Your task to perform on an android device: What's on my calendar tomorrow? Image 0: 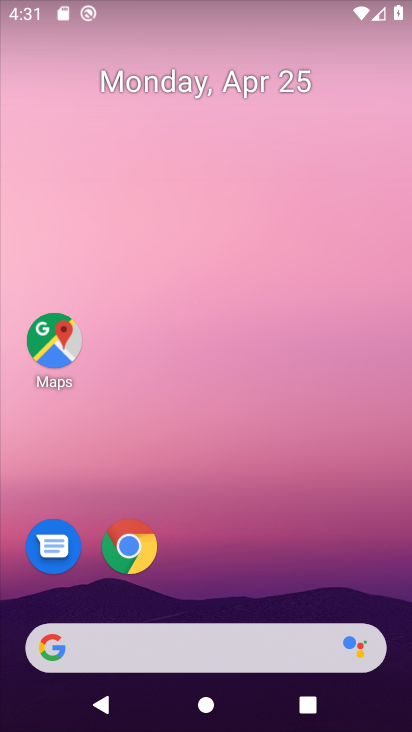
Step 0: drag from (266, 554) to (338, 1)
Your task to perform on an android device: What's on my calendar tomorrow? Image 1: 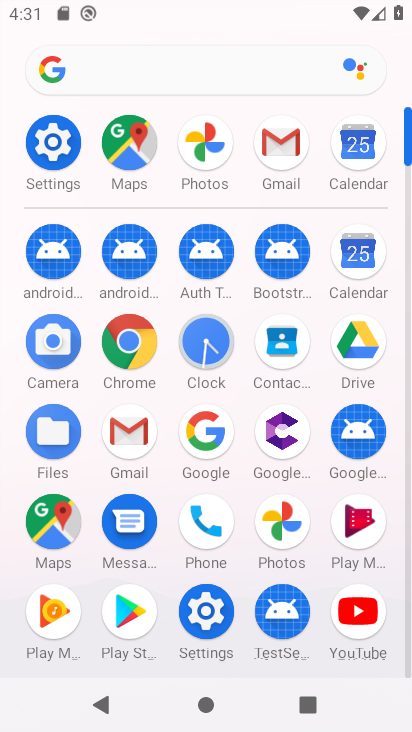
Step 1: click (367, 247)
Your task to perform on an android device: What's on my calendar tomorrow? Image 2: 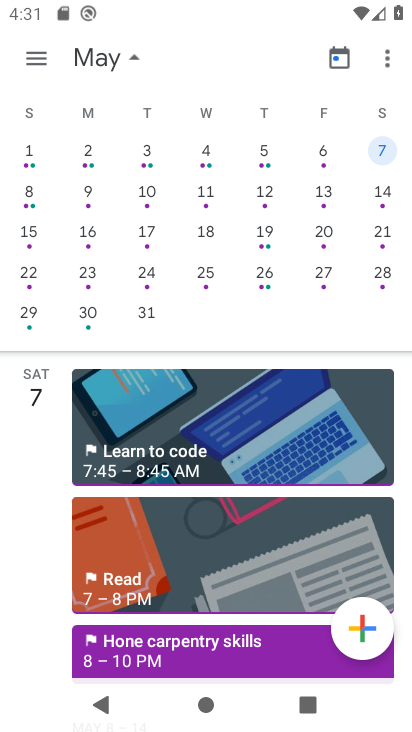
Step 2: drag from (118, 222) to (392, 252)
Your task to perform on an android device: What's on my calendar tomorrow? Image 3: 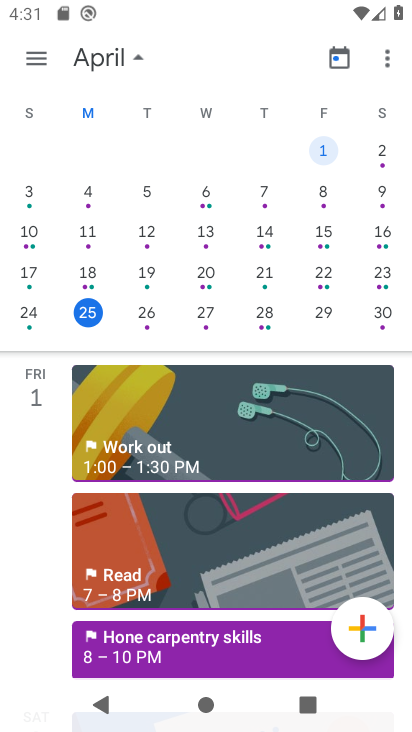
Step 3: click (141, 314)
Your task to perform on an android device: What's on my calendar tomorrow? Image 4: 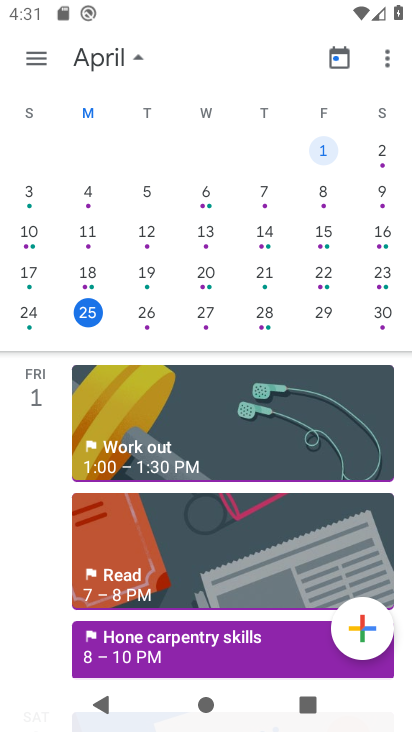
Step 4: click (150, 315)
Your task to perform on an android device: What's on my calendar tomorrow? Image 5: 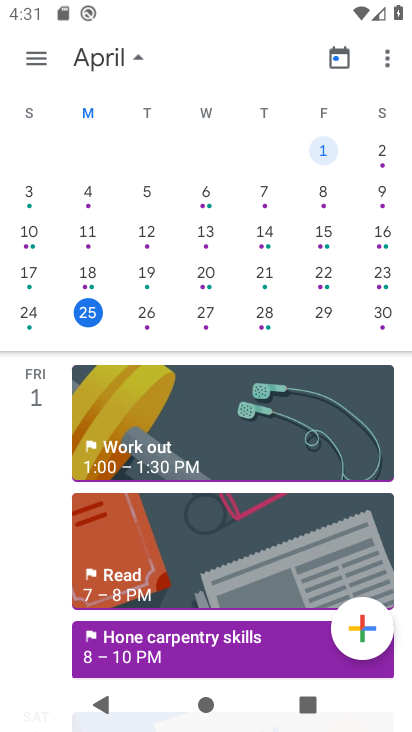
Step 5: click (157, 324)
Your task to perform on an android device: What's on my calendar tomorrow? Image 6: 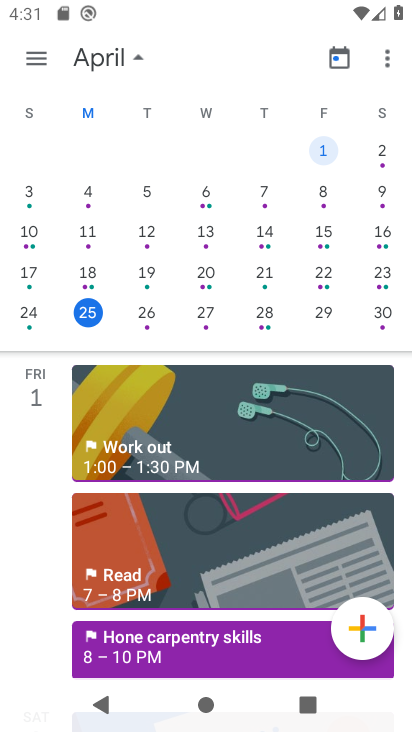
Step 6: click (149, 324)
Your task to perform on an android device: What's on my calendar tomorrow? Image 7: 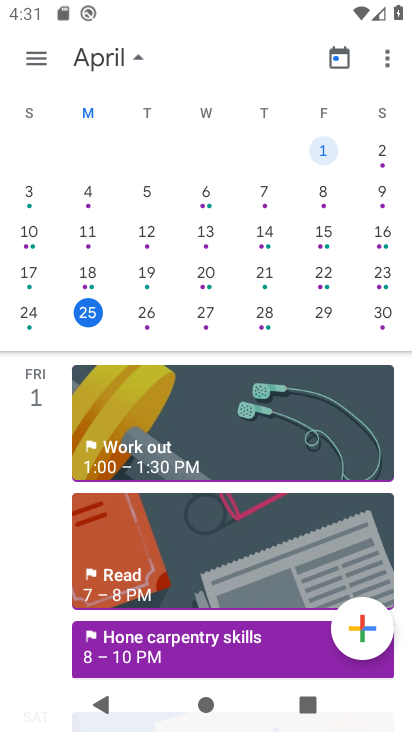
Step 7: click (148, 312)
Your task to perform on an android device: What's on my calendar tomorrow? Image 8: 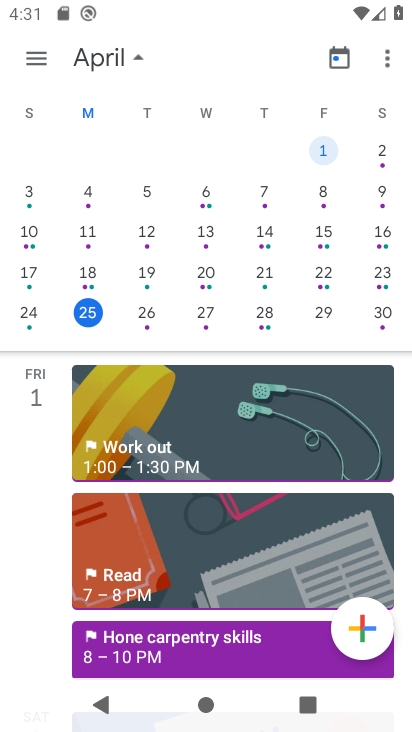
Step 8: click (149, 312)
Your task to perform on an android device: What's on my calendar tomorrow? Image 9: 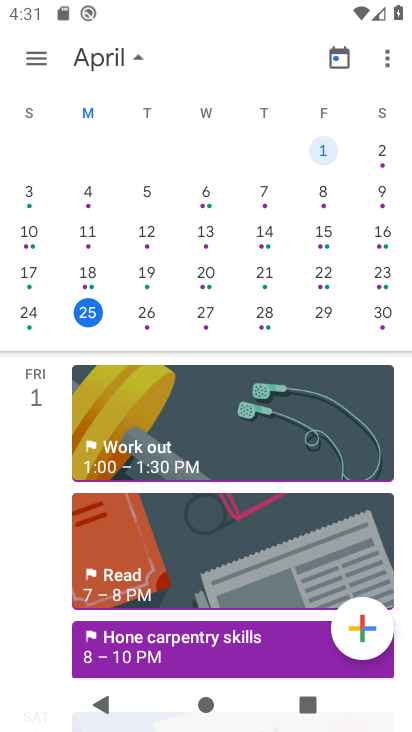
Step 9: click (153, 312)
Your task to perform on an android device: What's on my calendar tomorrow? Image 10: 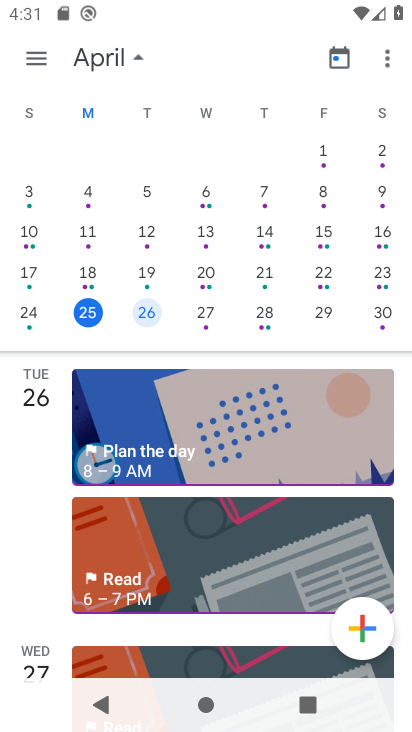
Step 10: task complete